Your task to perform on an android device: move an email to a new category in the gmail app Image 0: 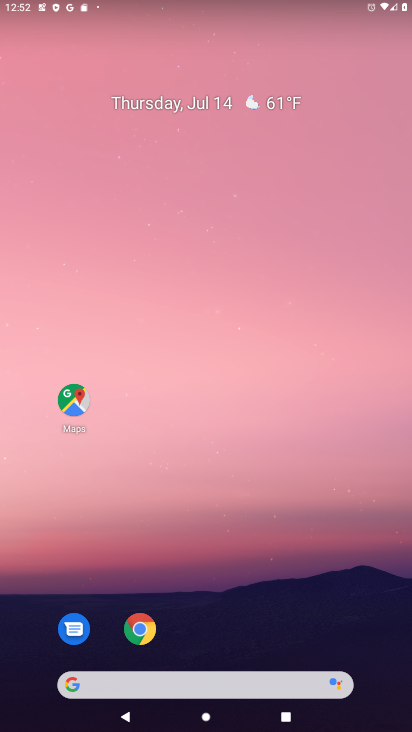
Step 0: drag from (179, 639) to (211, 104)
Your task to perform on an android device: move an email to a new category in the gmail app Image 1: 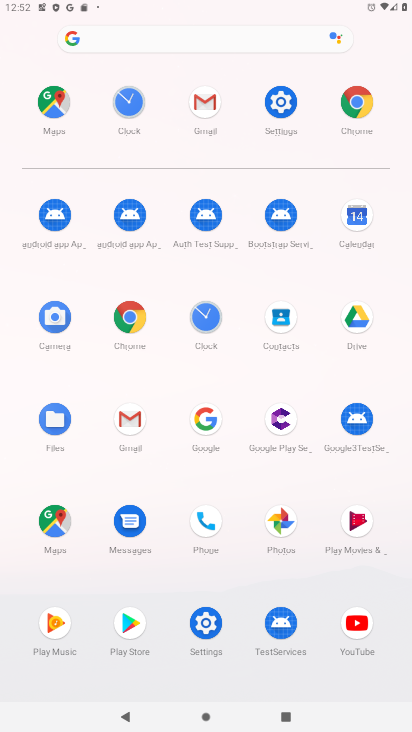
Step 1: click (208, 90)
Your task to perform on an android device: move an email to a new category in the gmail app Image 2: 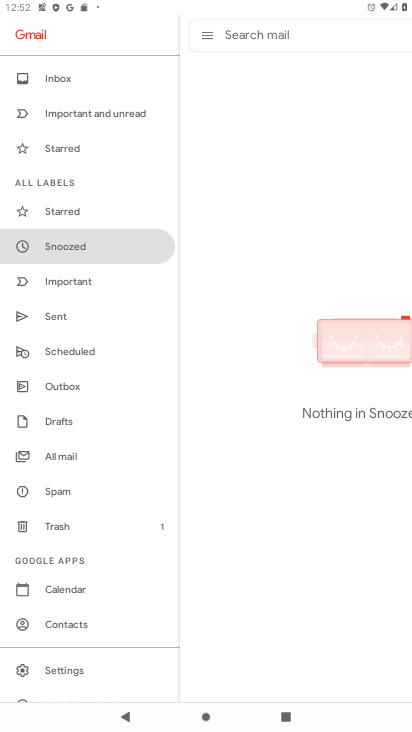
Step 2: task complete